Your task to perform on an android device: Open the stopwatch Image 0: 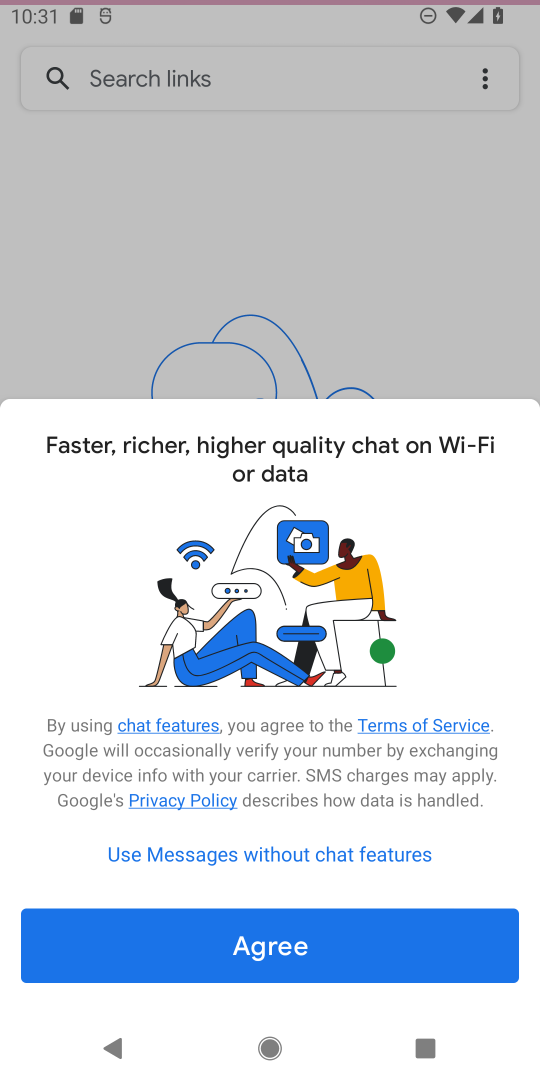
Step 0: press home button
Your task to perform on an android device: Open the stopwatch Image 1: 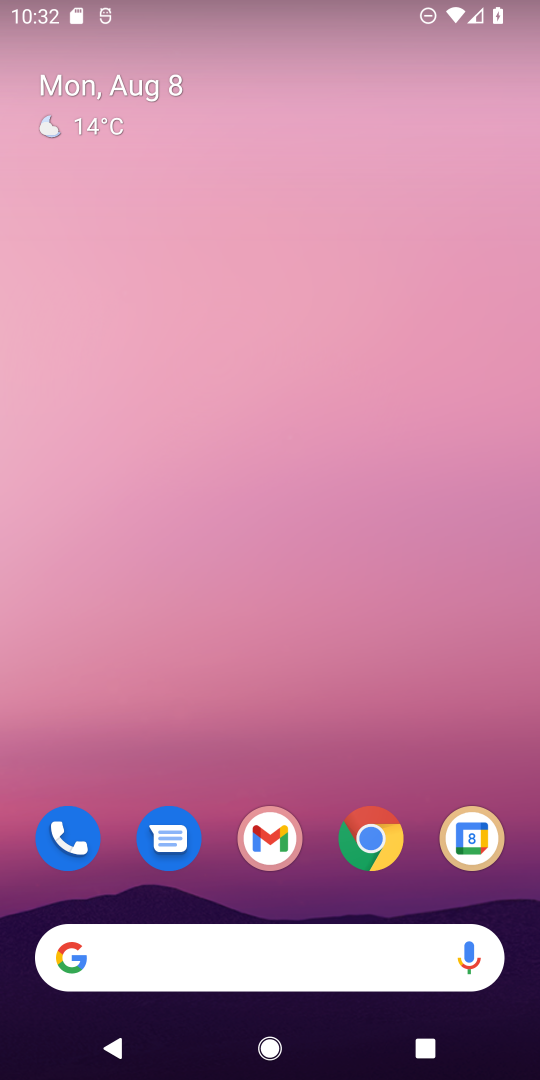
Step 1: drag from (370, 463) to (408, 177)
Your task to perform on an android device: Open the stopwatch Image 2: 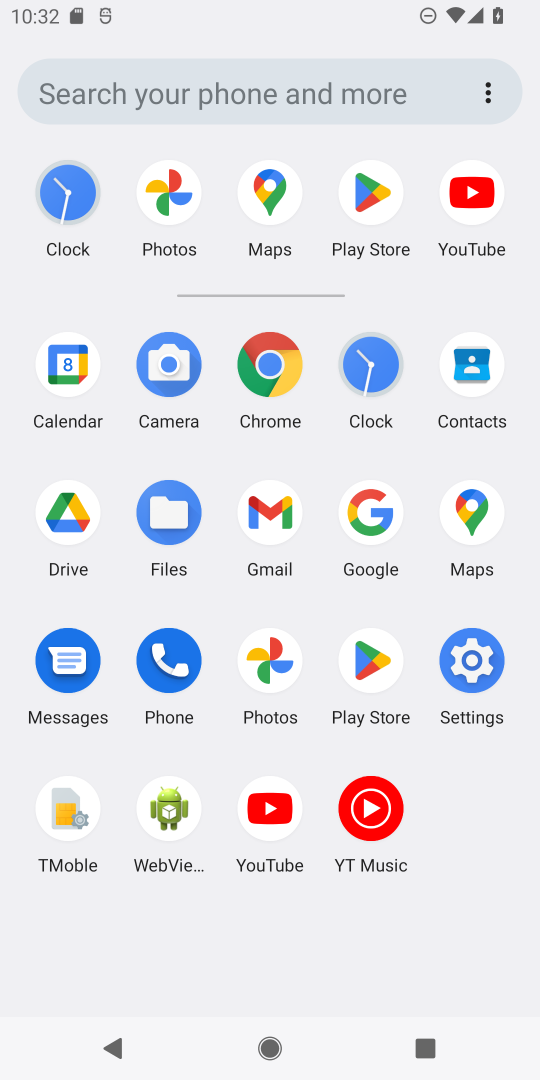
Step 2: click (367, 379)
Your task to perform on an android device: Open the stopwatch Image 3: 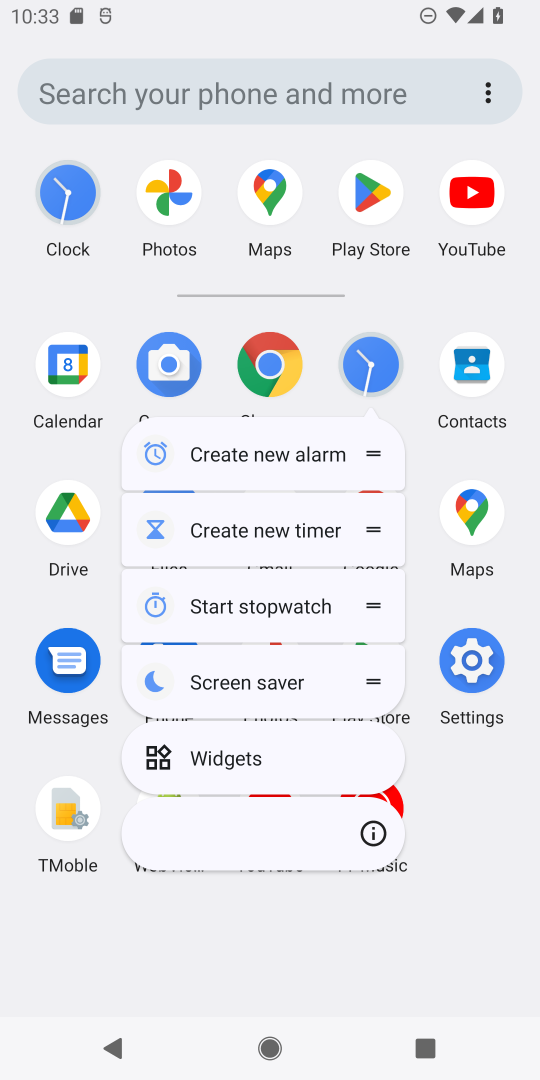
Step 3: click (372, 379)
Your task to perform on an android device: Open the stopwatch Image 4: 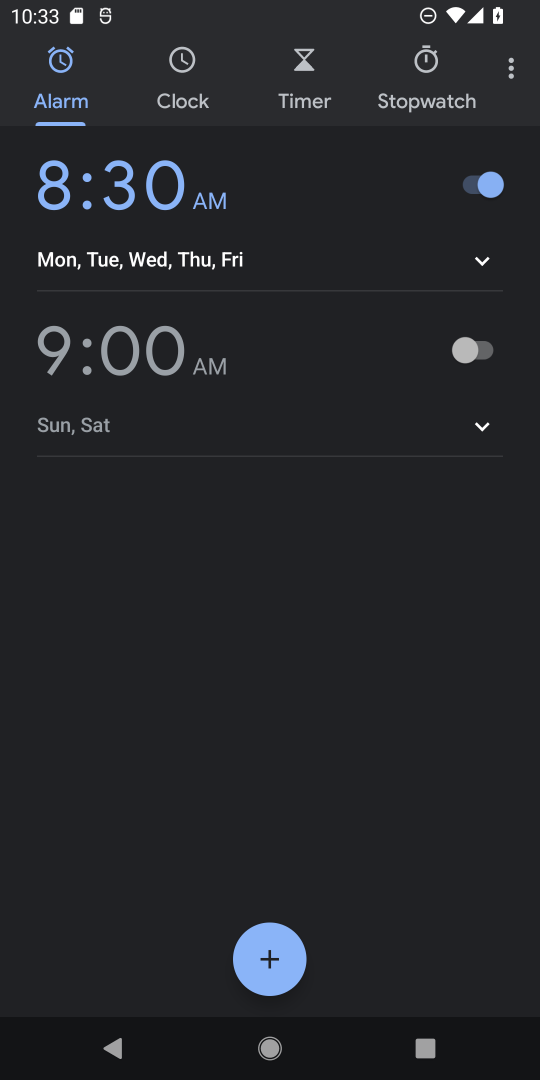
Step 4: click (446, 72)
Your task to perform on an android device: Open the stopwatch Image 5: 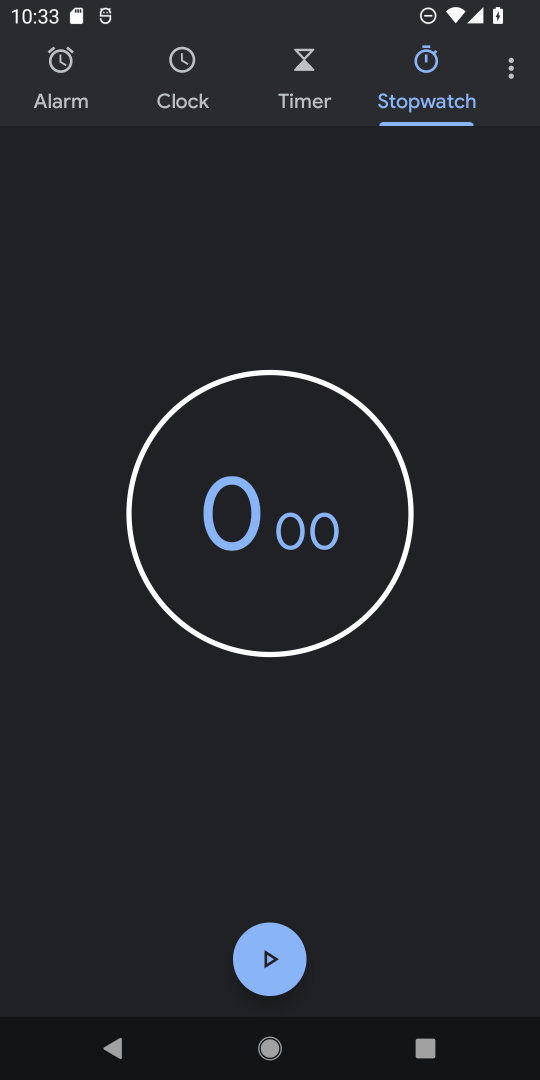
Step 5: task complete